Your task to perform on an android device: refresh tabs in the chrome app Image 0: 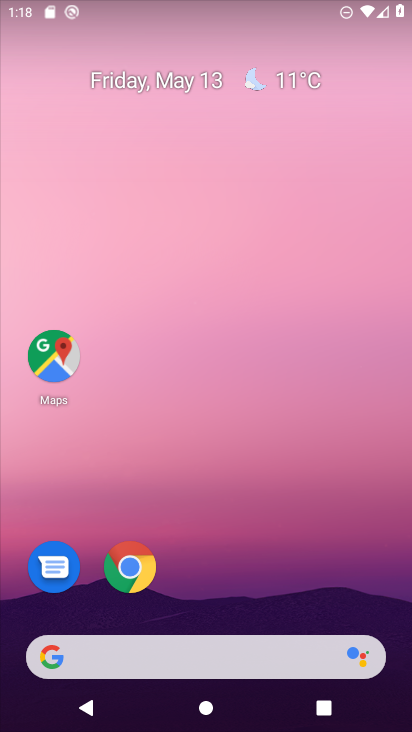
Step 0: click (129, 566)
Your task to perform on an android device: refresh tabs in the chrome app Image 1: 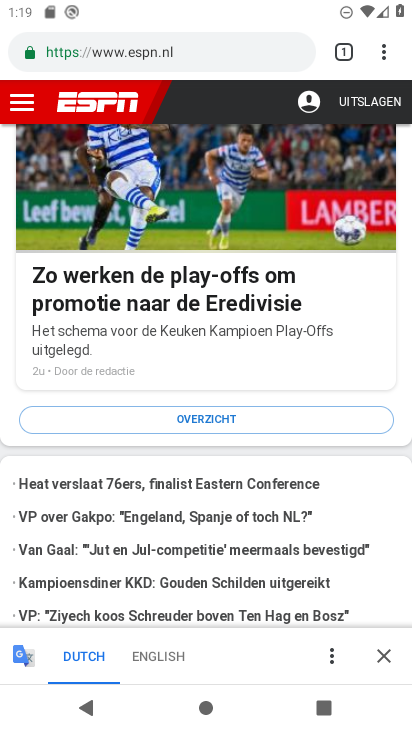
Step 1: click (387, 49)
Your task to perform on an android device: refresh tabs in the chrome app Image 2: 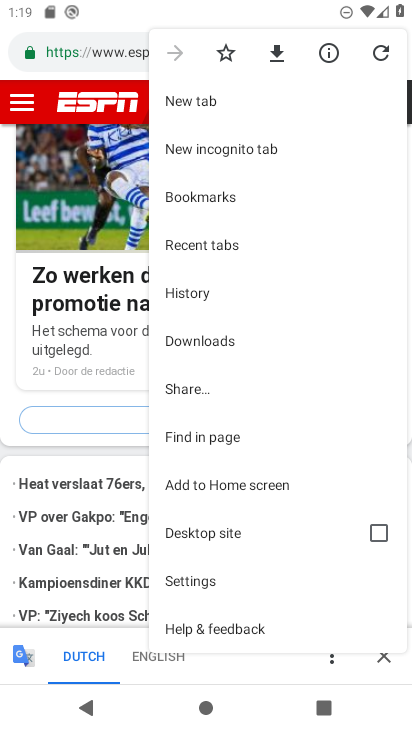
Step 2: click (378, 58)
Your task to perform on an android device: refresh tabs in the chrome app Image 3: 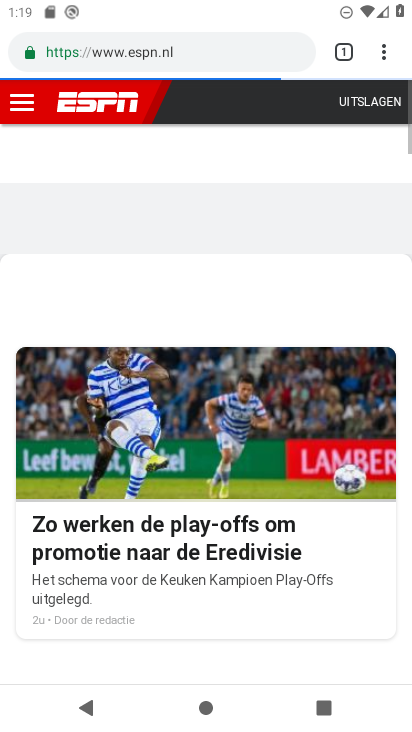
Step 3: task complete